Your task to perform on an android device: toggle wifi Image 0: 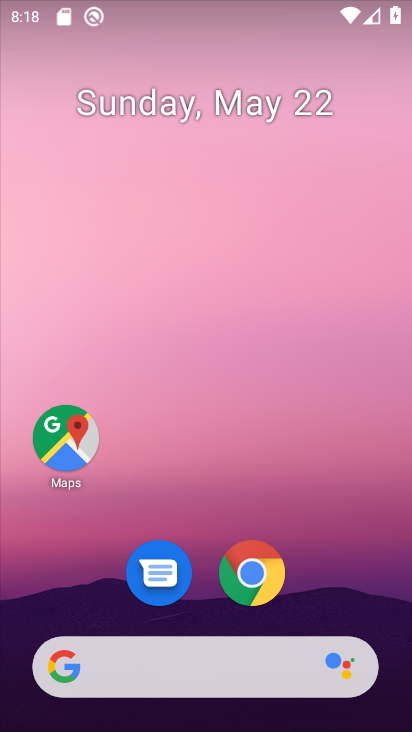
Step 0: click (260, 173)
Your task to perform on an android device: toggle wifi Image 1: 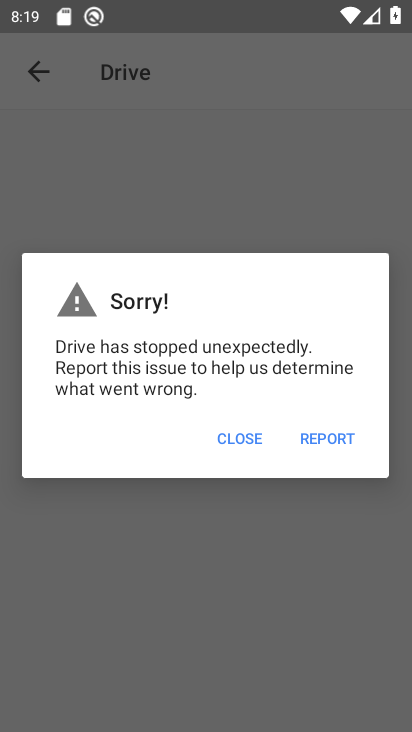
Step 1: click (307, 656)
Your task to perform on an android device: toggle wifi Image 2: 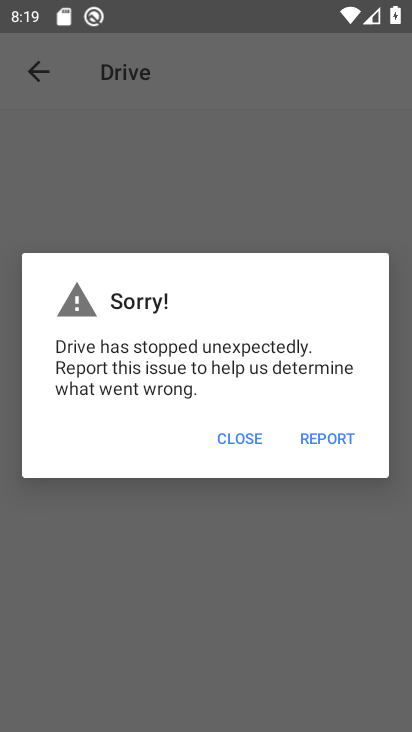
Step 2: press home button
Your task to perform on an android device: toggle wifi Image 3: 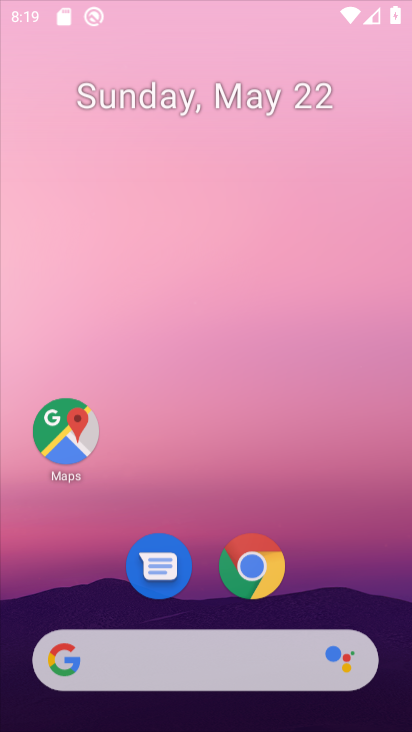
Step 3: drag from (234, 609) to (376, 135)
Your task to perform on an android device: toggle wifi Image 4: 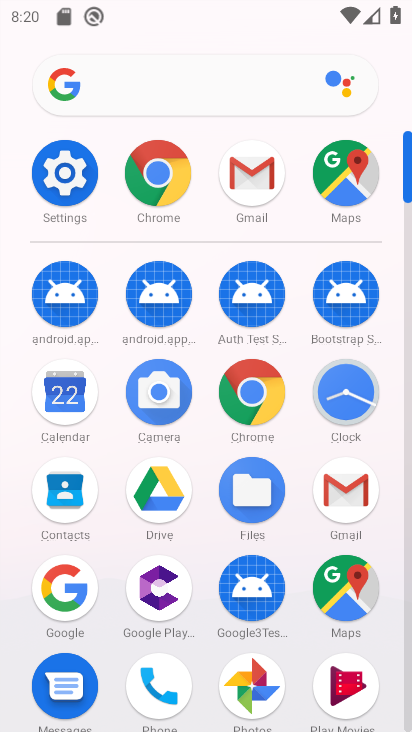
Step 4: click (82, 171)
Your task to perform on an android device: toggle wifi Image 5: 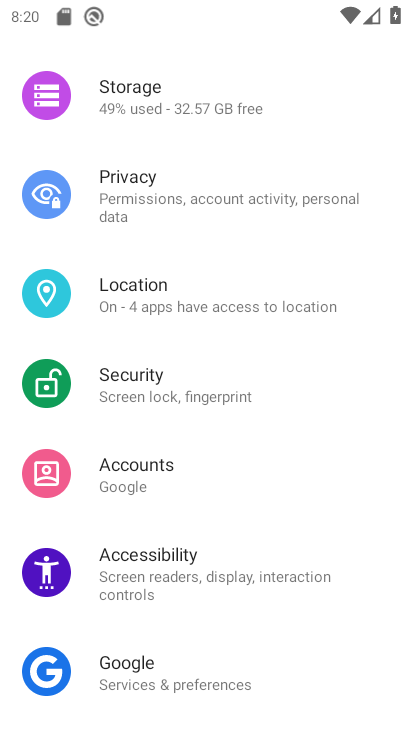
Step 5: drag from (227, 179) to (411, 690)
Your task to perform on an android device: toggle wifi Image 6: 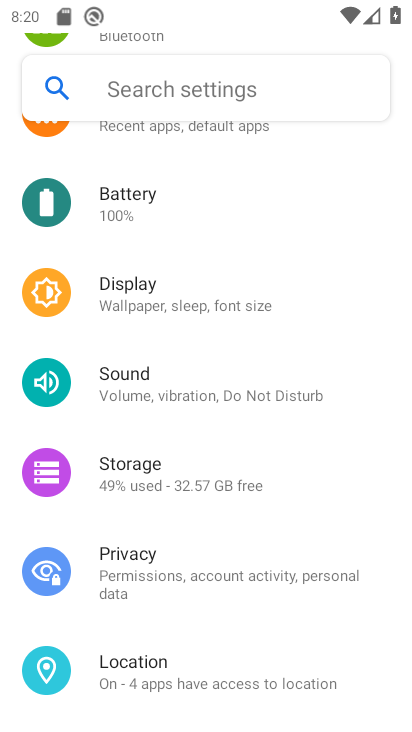
Step 6: drag from (160, 207) to (378, 730)
Your task to perform on an android device: toggle wifi Image 7: 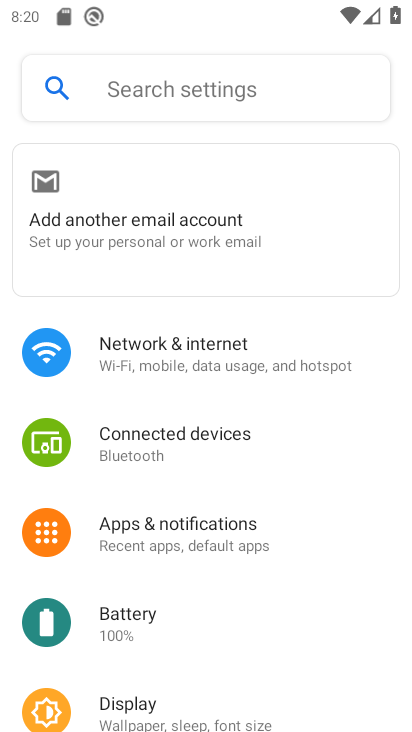
Step 7: click (208, 374)
Your task to perform on an android device: toggle wifi Image 8: 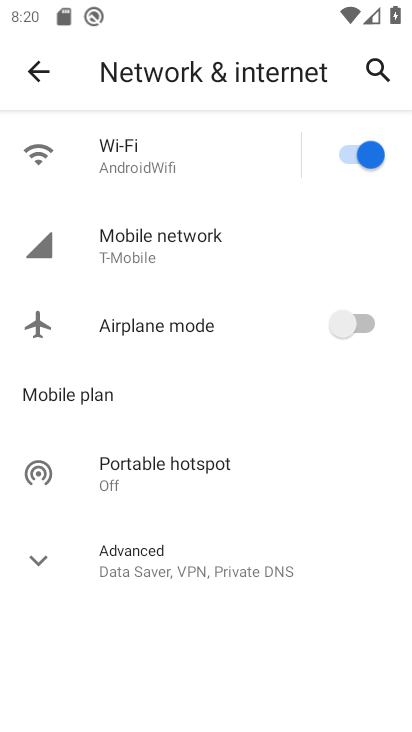
Step 8: click (126, 176)
Your task to perform on an android device: toggle wifi Image 9: 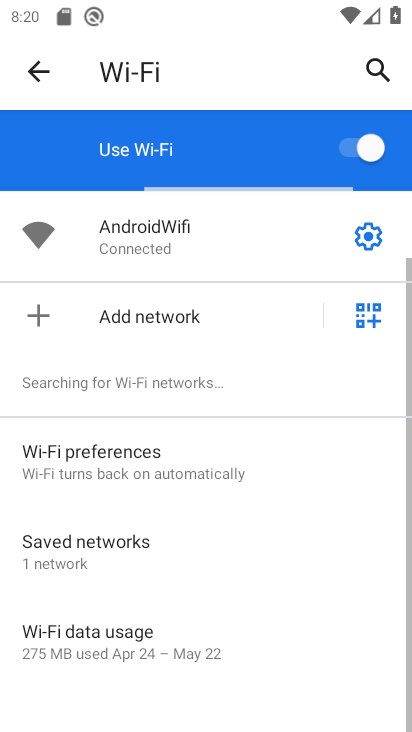
Step 9: click (308, 148)
Your task to perform on an android device: toggle wifi Image 10: 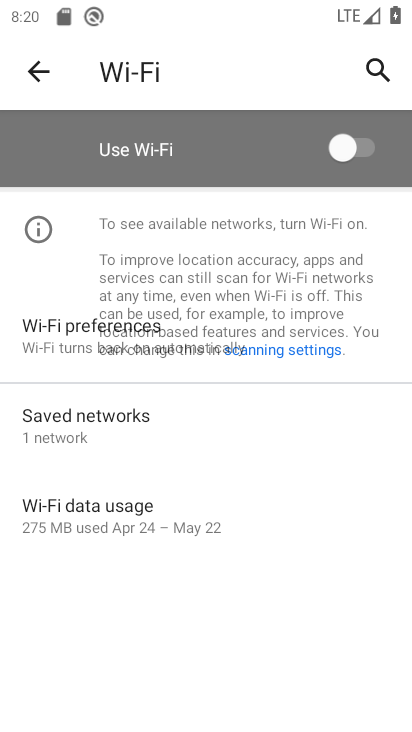
Step 10: task complete